Your task to perform on an android device: turn on priority inbox in the gmail app Image 0: 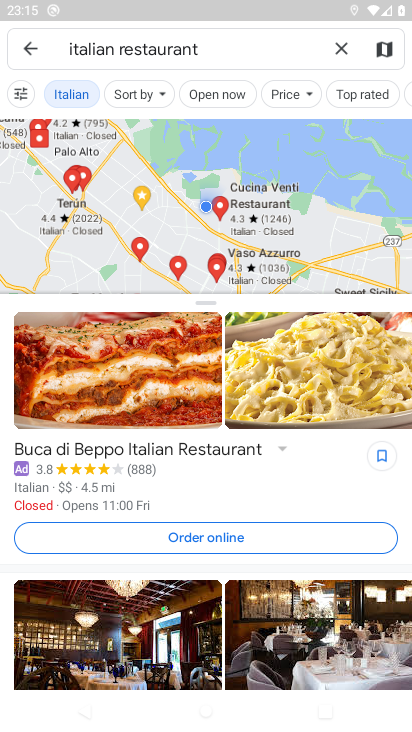
Step 0: press home button
Your task to perform on an android device: turn on priority inbox in the gmail app Image 1: 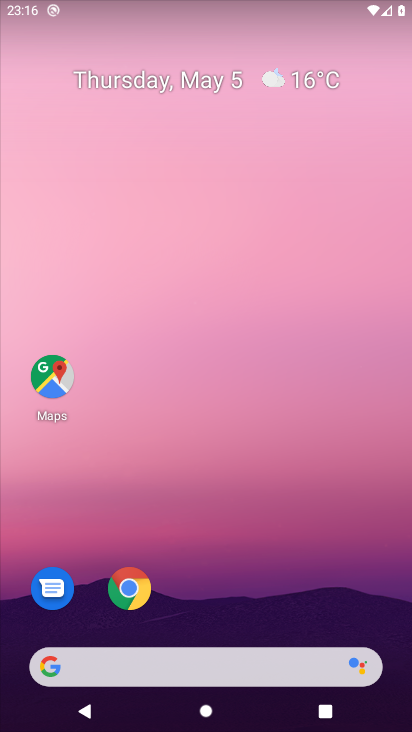
Step 1: drag from (250, 590) to (202, 55)
Your task to perform on an android device: turn on priority inbox in the gmail app Image 2: 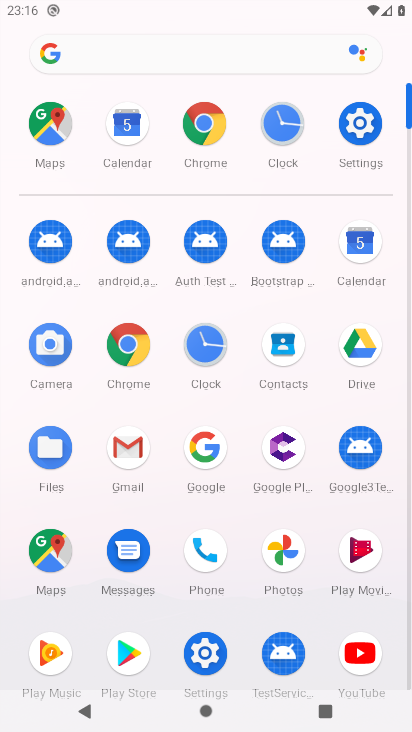
Step 2: click (136, 450)
Your task to perform on an android device: turn on priority inbox in the gmail app Image 3: 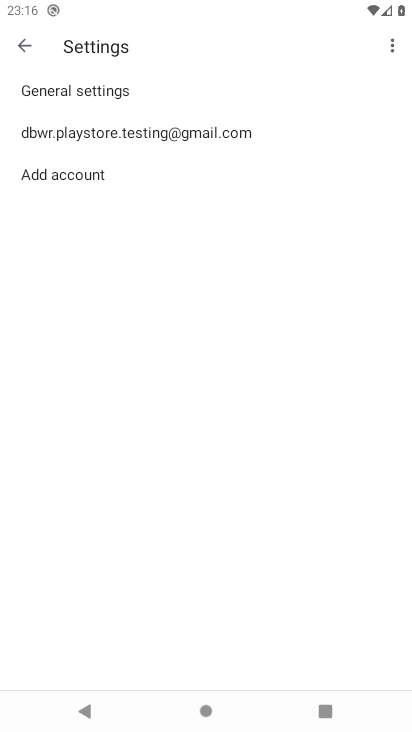
Step 3: click (281, 131)
Your task to perform on an android device: turn on priority inbox in the gmail app Image 4: 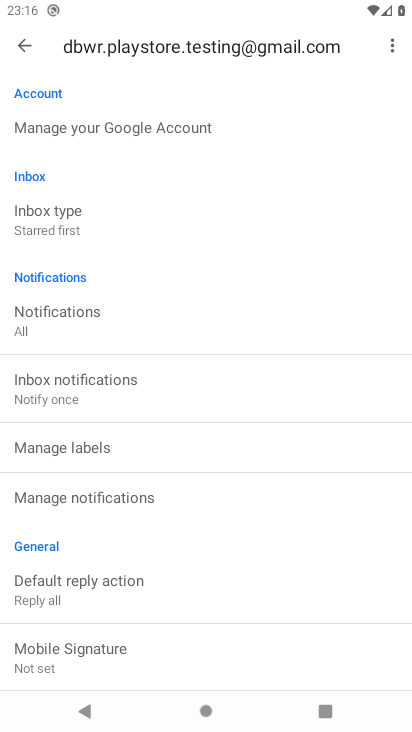
Step 4: click (181, 229)
Your task to perform on an android device: turn on priority inbox in the gmail app Image 5: 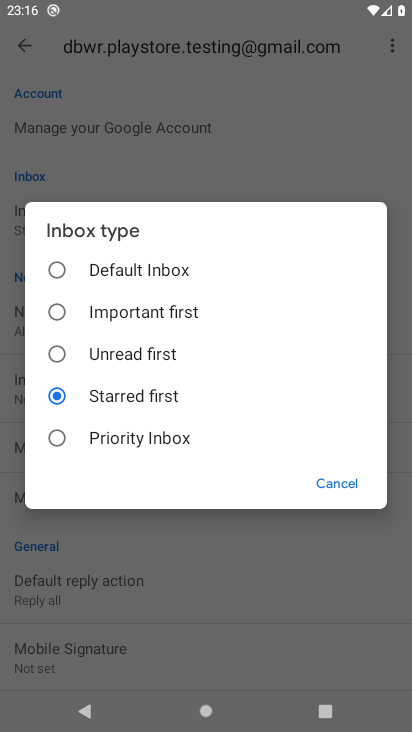
Step 5: click (157, 439)
Your task to perform on an android device: turn on priority inbox in the gmail app Image 6: 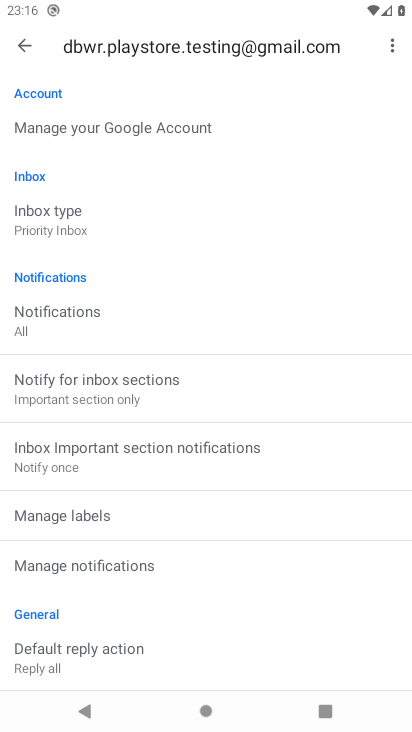
Step 6: task complete